Your task to perform on an android device: Go to Google maps Image 0: 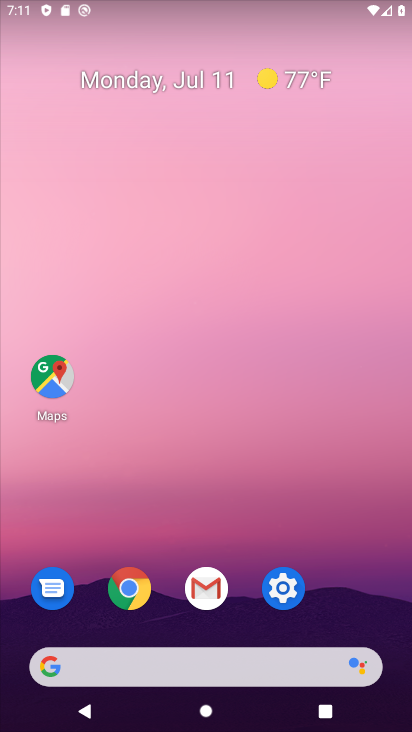
Step 0: click (63, 387)
Your task to perform on an android device: Go to Google maps Image 1: 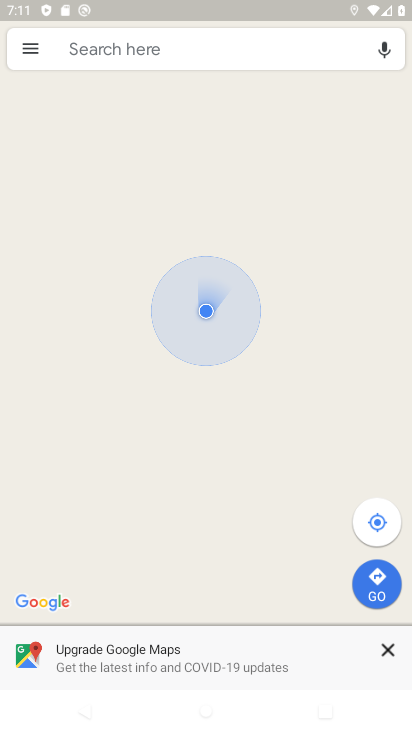
Step 1: click (379, 591)
Your task to perform on an android device: Go to Google maps Image 2: 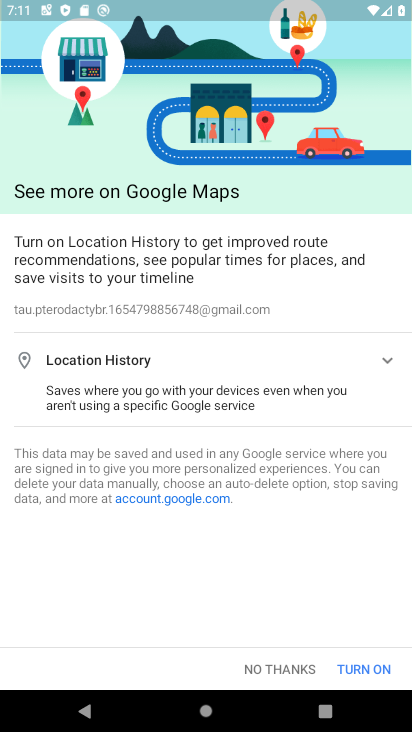
Step 2: click (284, 669)
Your task to perform on an android device: Go to Google maps Image 3: 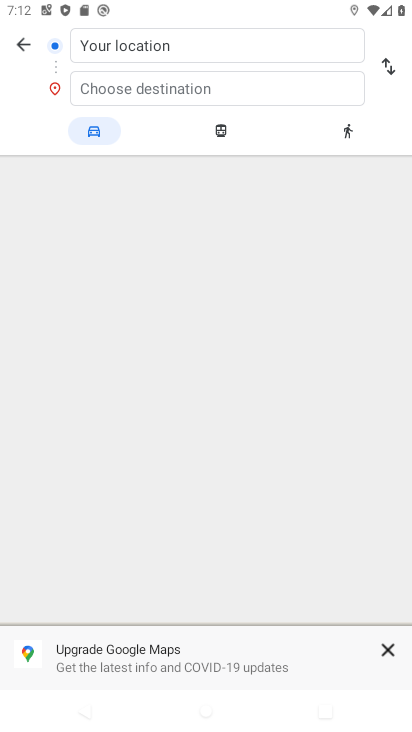
Step 3: task complete